Your task to perform on an android device: clear history in the chrome app Image 0: 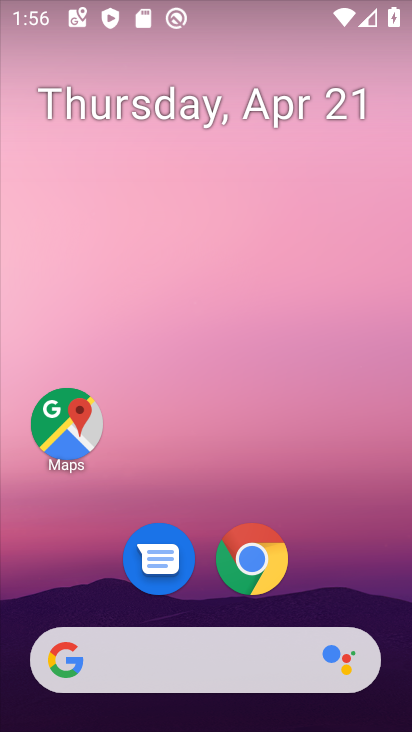
Step 0: drag from (215, 588) to (242, 90)
Your task to perform on an android device: clear history in the chrome app Image 1: 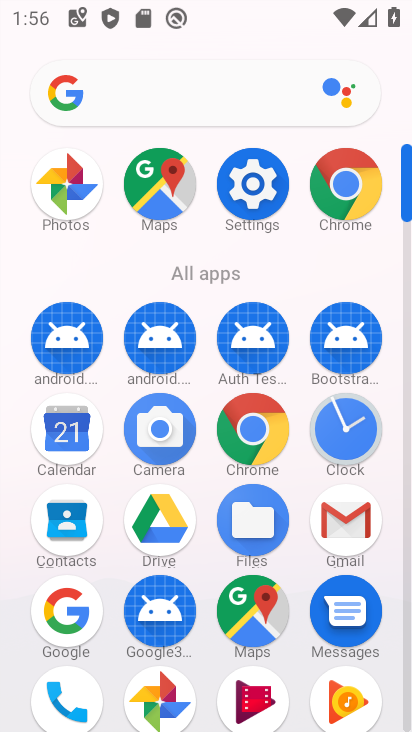
Step 1: click (341, 182)
Your task to perform on an android device: clear history in the chrome app Image 2: 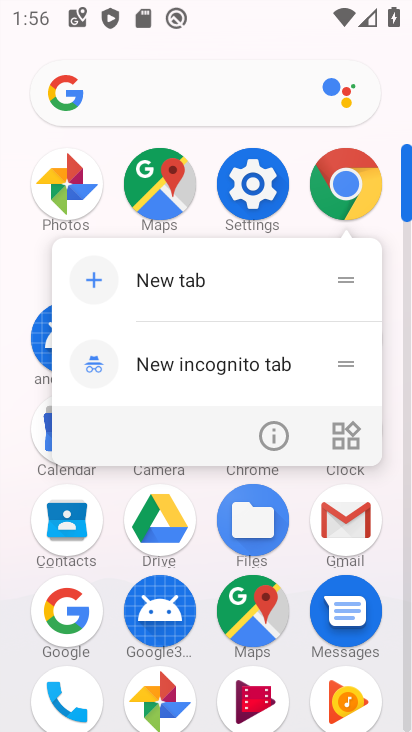
Step 2: click (346, 190)
Your task to perform on an android device: clear history in the chrome app Image 3: 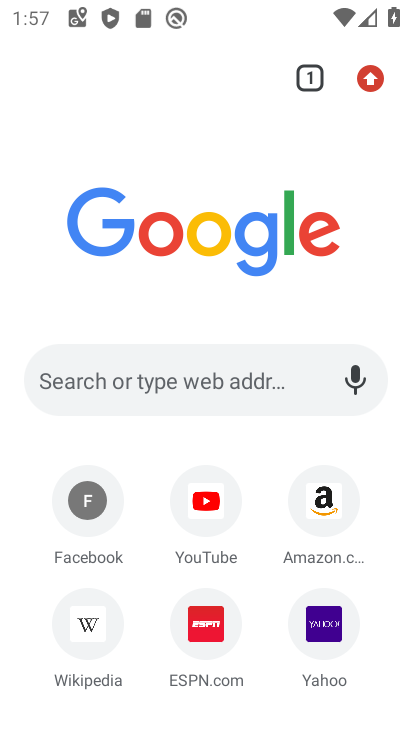
Step 3: click (368, 82)
Your task to perform on an android device: clear history in the chrome app Image 4: 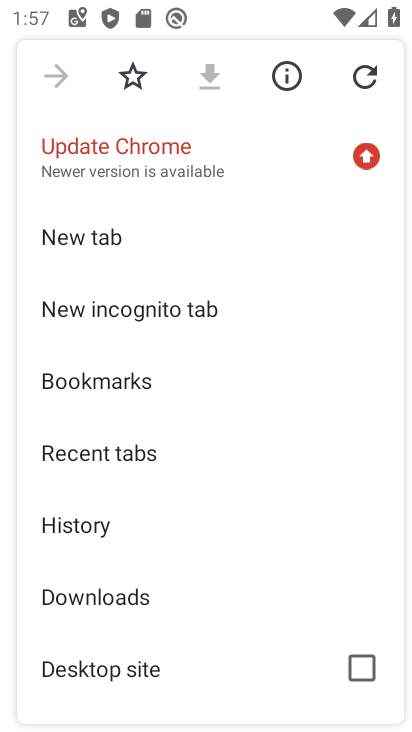
Step 4: drag from (191, 611) to (160, 168)
Your task to perform on an android device: clear history in the chrome app Image 5: 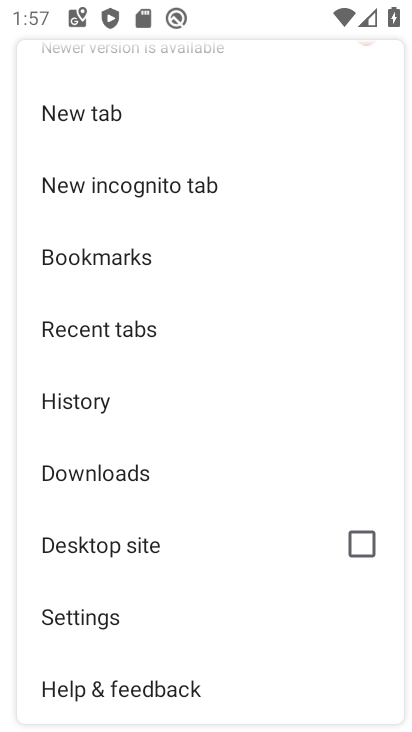
Step 5: click (86, 411)
Your task to perform on an android device: clear history in the chrome app Image 6: 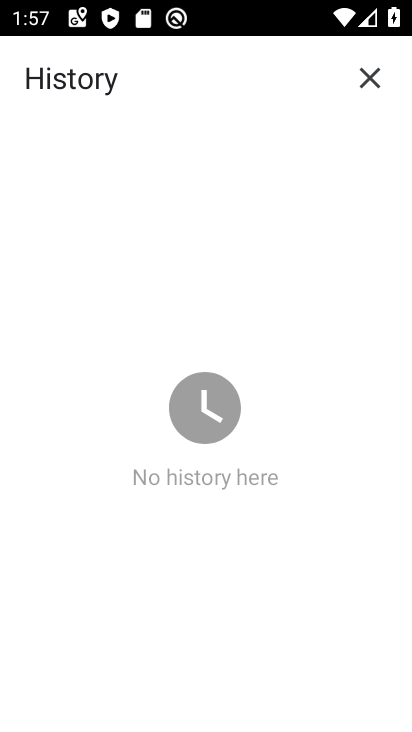
Step 6: task complete